Your task to perform on an android device: Go to battery settings Image 0: 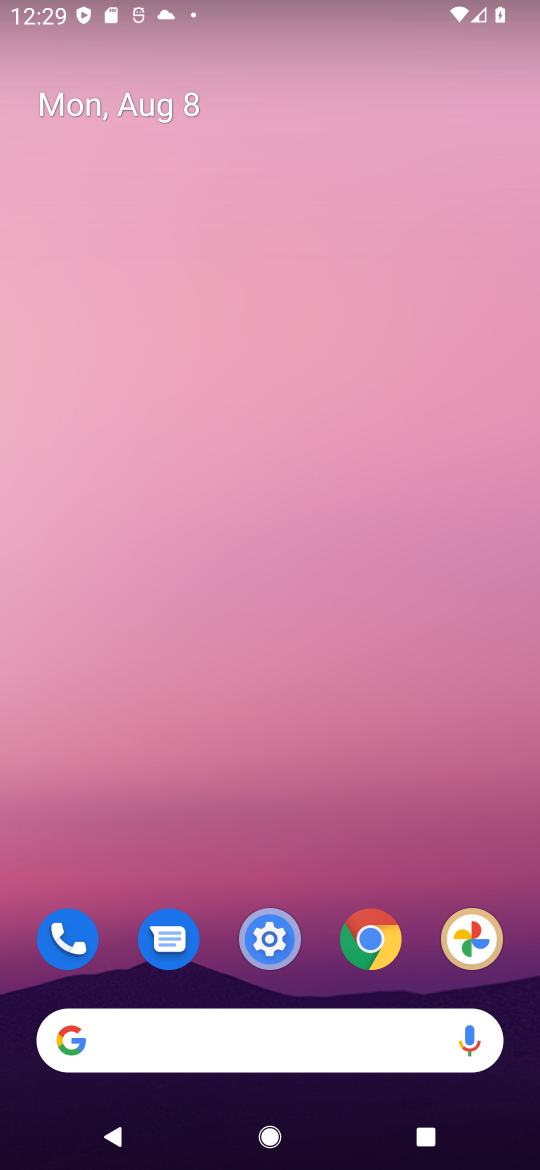
Step 0: click (274, 938)
Your task to perform on an android device: Go to battery settings Image 1: 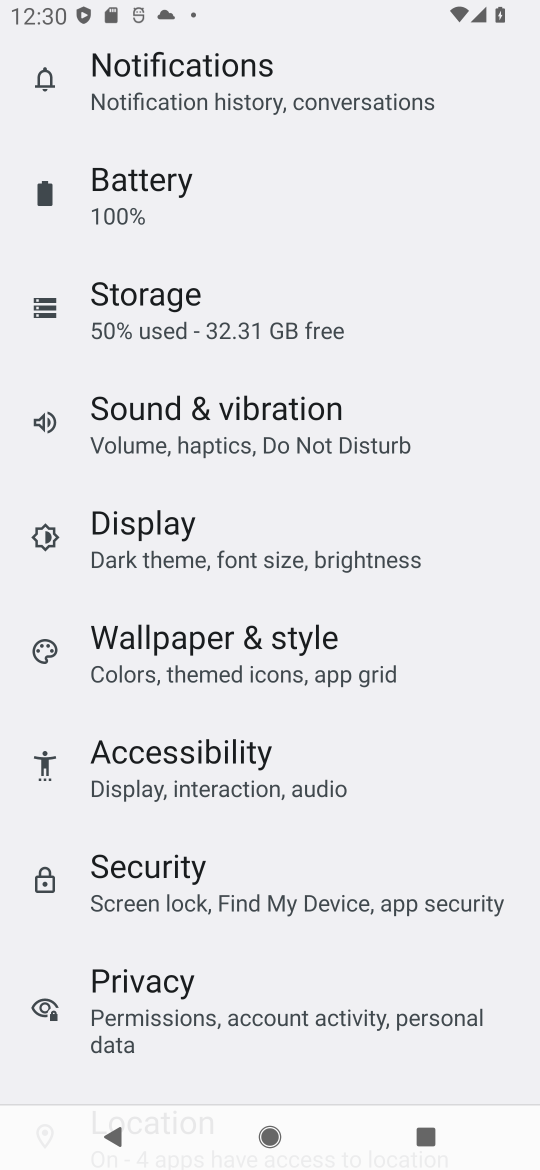
Step 1: click (168, 213)
Your task to perform on an android device: Go to battery settings Image 2: 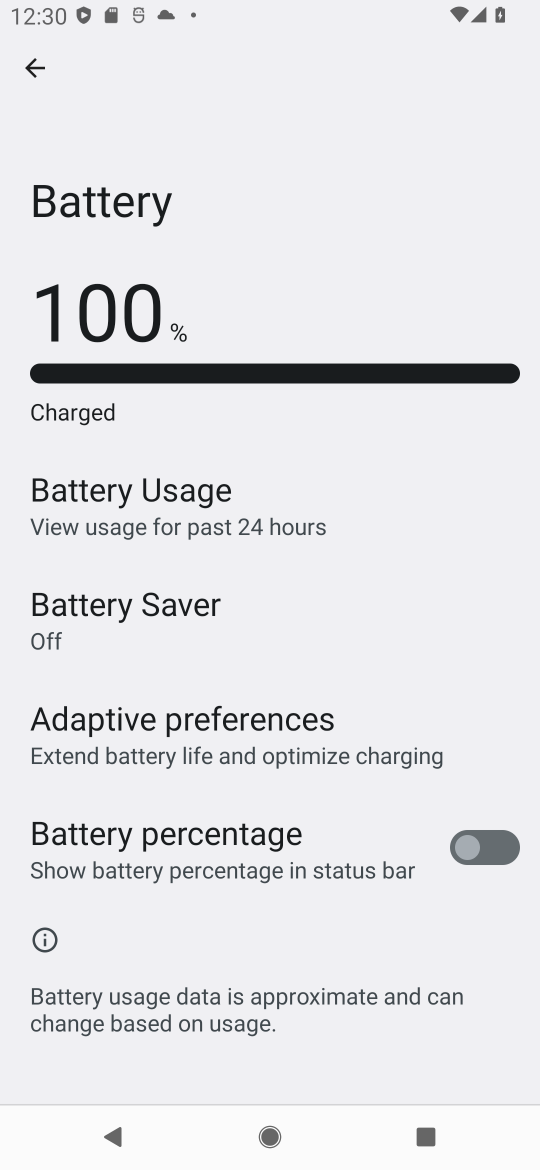
Step 2: task complete